Your task to perform on an android device: Open ESPN.com Image 0: 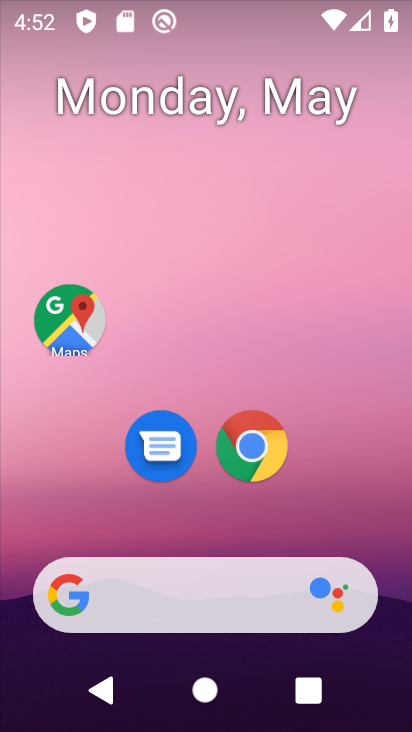
Step 0: click (267, 451)
Your task to perform on an android device: Open ESPN.com Image 1: 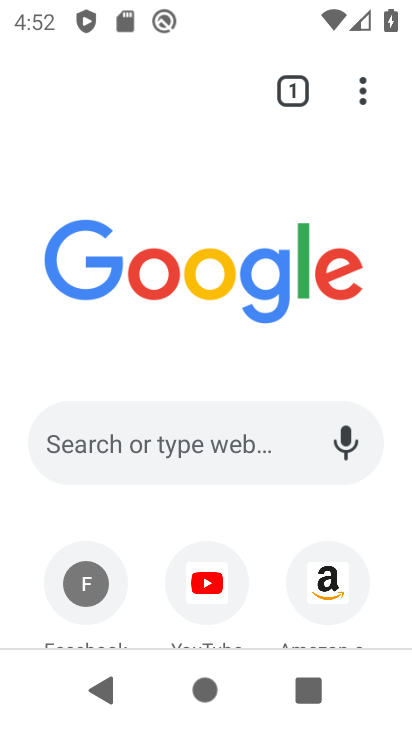
Step 1: drag from (136, 514) to (102, 207)
Your task to perform on an android device: Open ESPN.com Image 2: 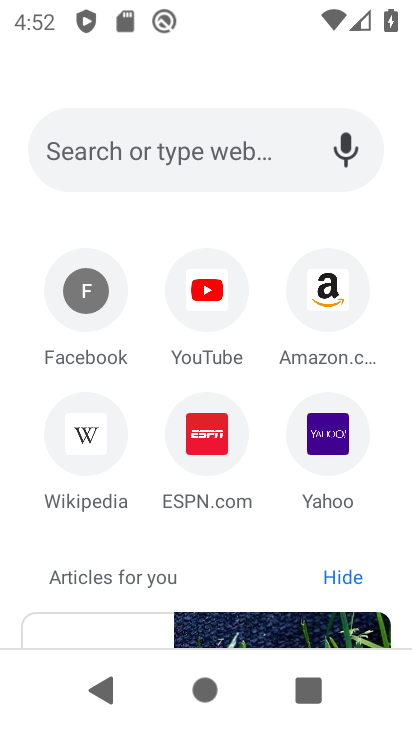
Step 2: click (199, 424)
Your task to perform on an android device: Open ESPN.com Image 3: 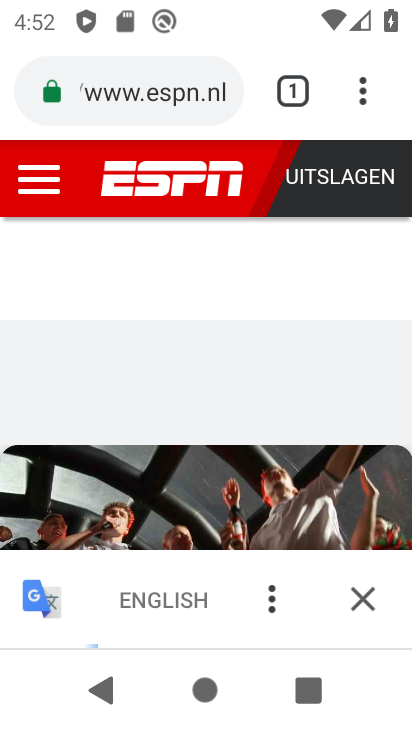
Step 3: task complete